Your task to perform on an android device: Show me recent news Image 0: 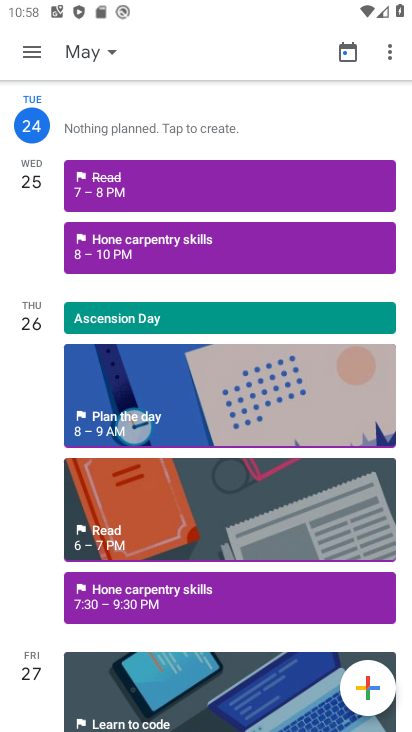
Step 0: press home button
Your task to perform on an android device: Show me recent news Image 1: 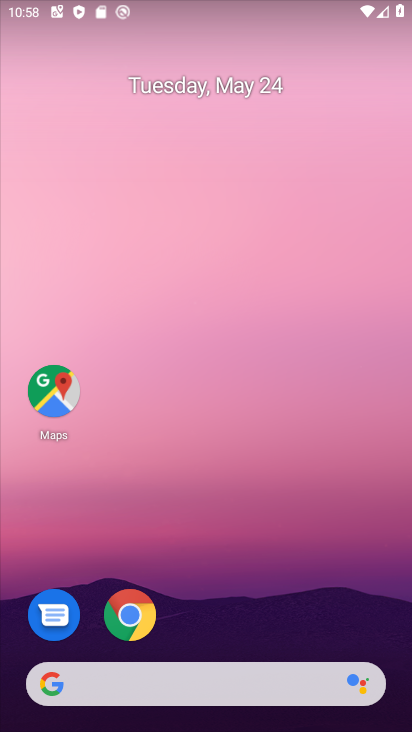
Step 1: click (146, 675)
Your task to perform on an android device: Show me recent news Image 2: 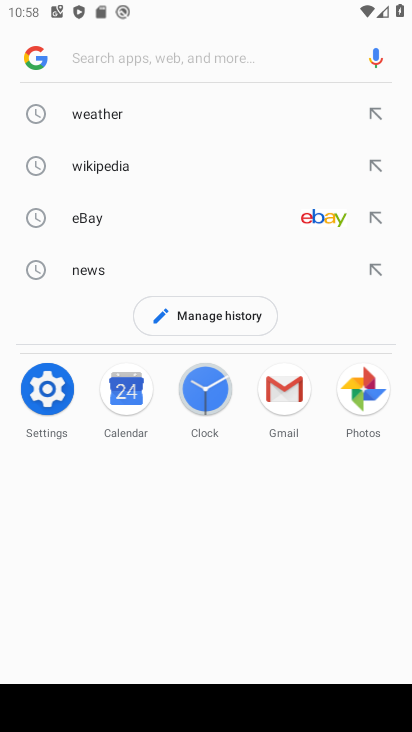
Step 2: type "recent news"
Your task to perform on an android device: Show me recent news Image 3: 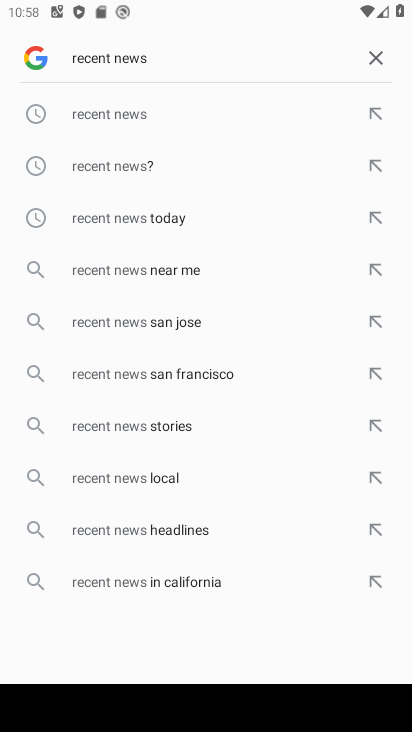
Step 3: click (137, 119)
Your task to perform on an android device: Show me recent news Image 4: 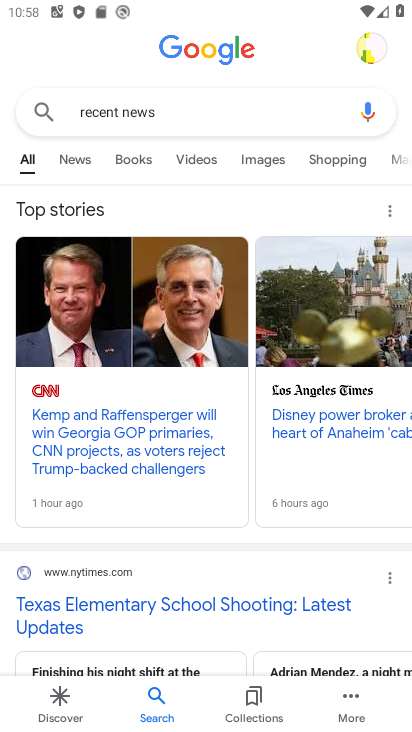
Step 4: task complete